Your task to perform on an android device: See recent photos Image 0: 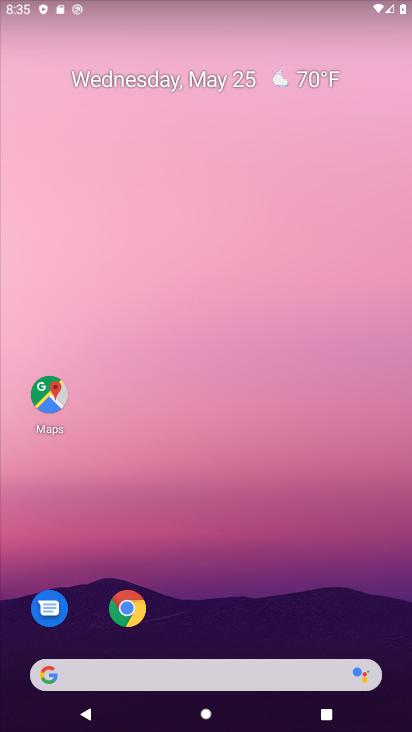
Step 0: drag from (280, 560) to (186, 30)
Your task to perform on an android device: See recent photos Image 1: 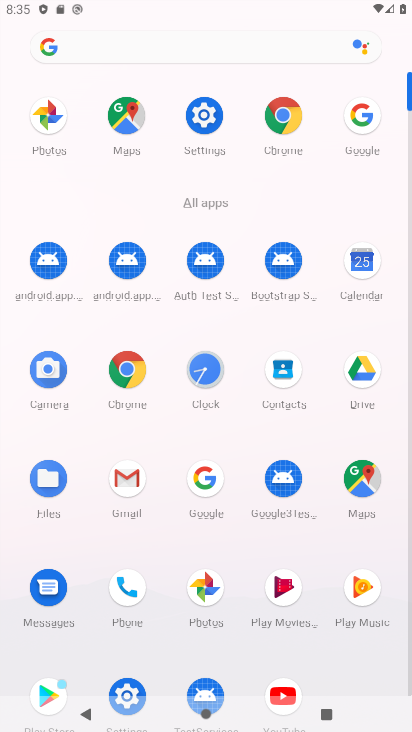
Step 1: click (208, 588)
Your task to perform on an android device: See recent photos Image 2: 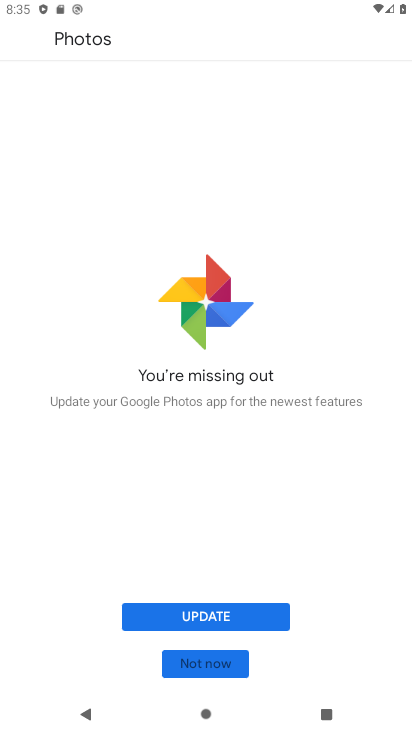
Step 2: click (237, 622)
Your task to perform on an android device: See recent photos Image 3: 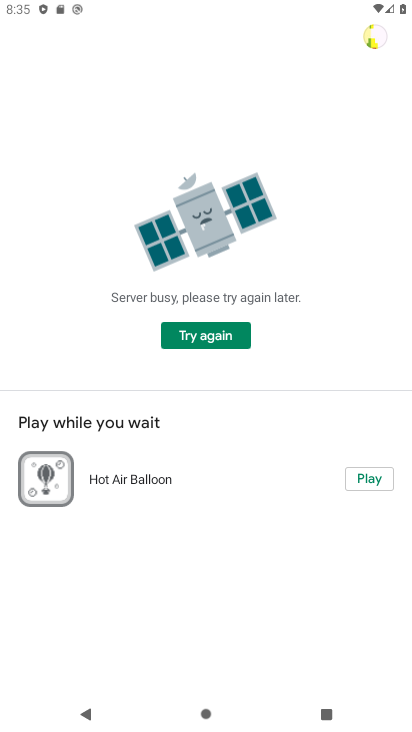
Step 3: click (207, 340)
Your task to perform on an android device: See recent photos Image 4: 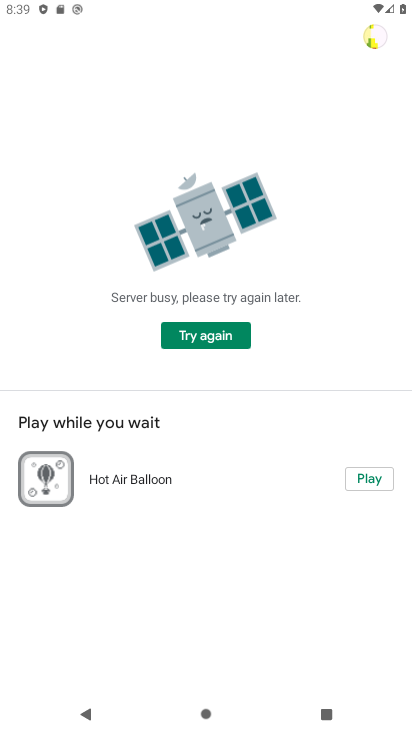
Step 4: task complete